Your task to perform on an android device: Show me popular videos on Youtube Image 0: 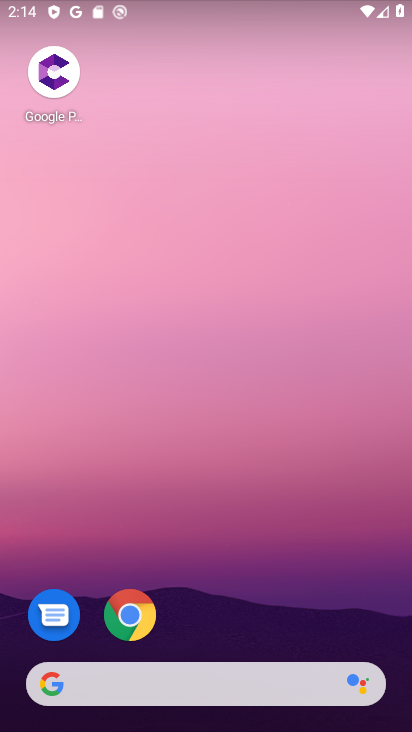
Step 0: drag from (206, 605) to (283, 168)
Your task to perform on an android device: Show me popular videos on Youtube Image 1: 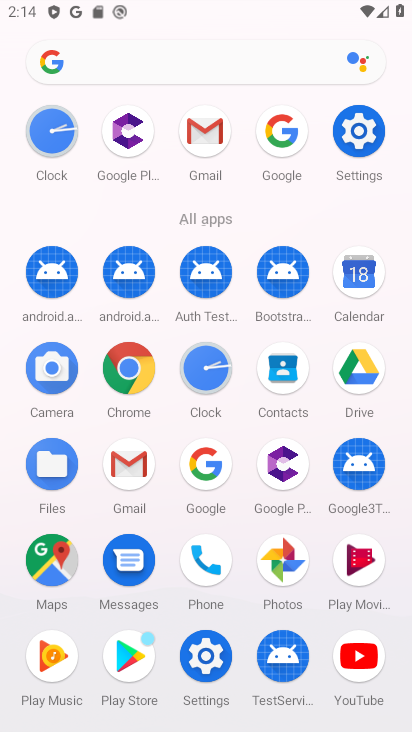
Step 1: click (355, 650)
Your task to perform on an android device: Show me popular videos on Youtube Image 2: 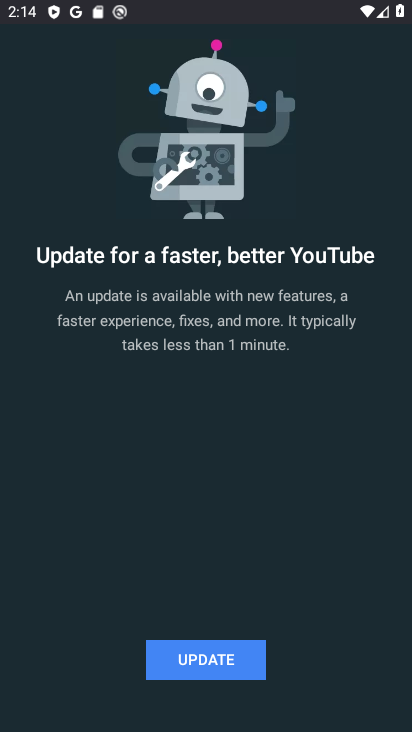
Step 2: click (191, 666)
Your task to perform on an android device: Show me popular videos on Youtube Image 3: 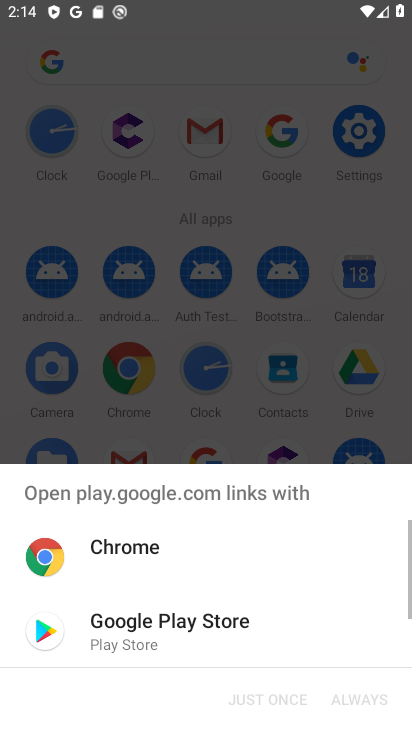
Step 3: click (195, 627)
Your task to perform on an android device: Show me popular videos on Youtube Image 4: 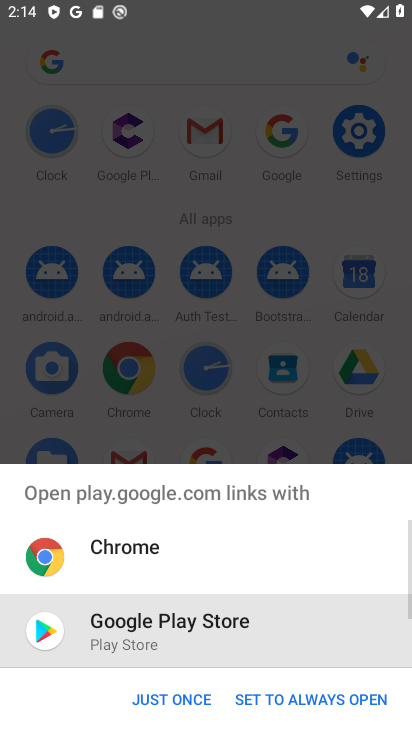
Step 4: click (179, 688)
Your task to perform on an android device: Show me popular videos on Youtube Image 5: 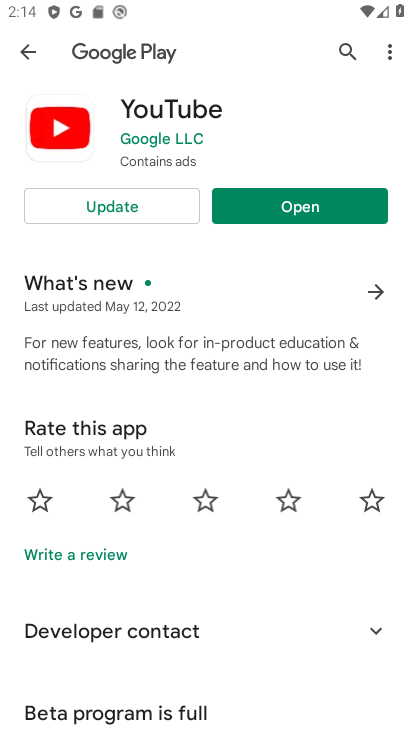
Step 5: click (152, 214)
Your task to perform on an android device: Show me popular videos on Youtube Image 6: 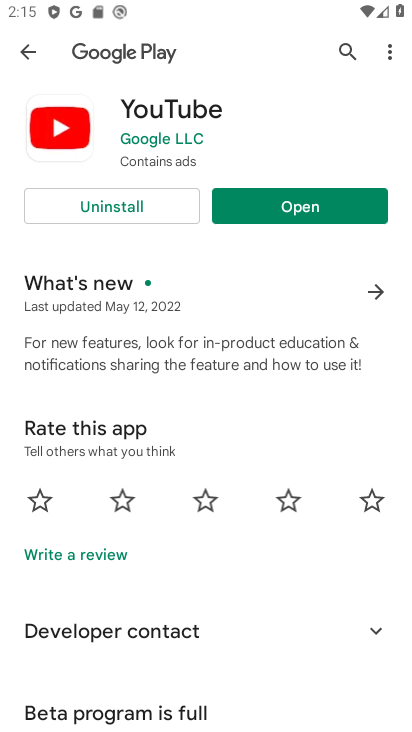
Step 6: click (310, 212)
Your task to perform on an android device: Show me popular videos on Youtube Image 7: 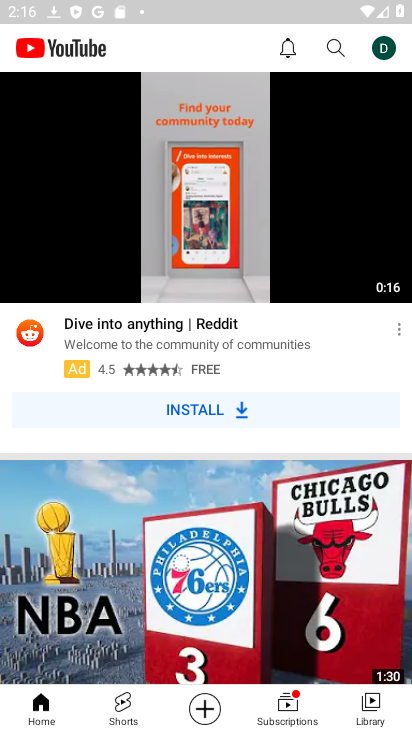
Step 7: click (333, 39)
Your task to perform on an android device: Show me popular videos on Youtube Image 8: 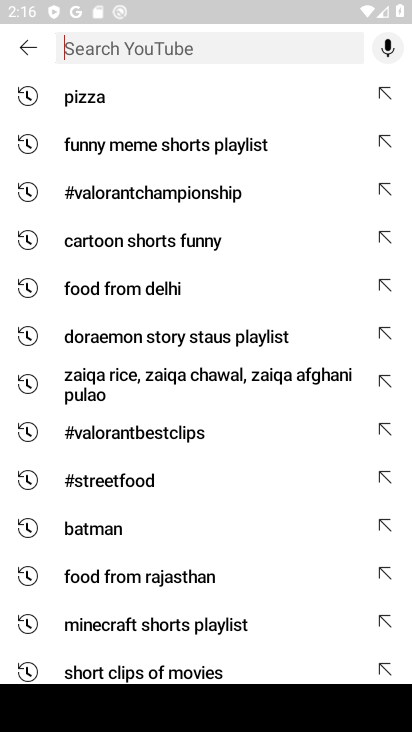
Step 8: type "popular videos"
Your task to perform on an android device: Show me popular videos on Youtube Image 9: 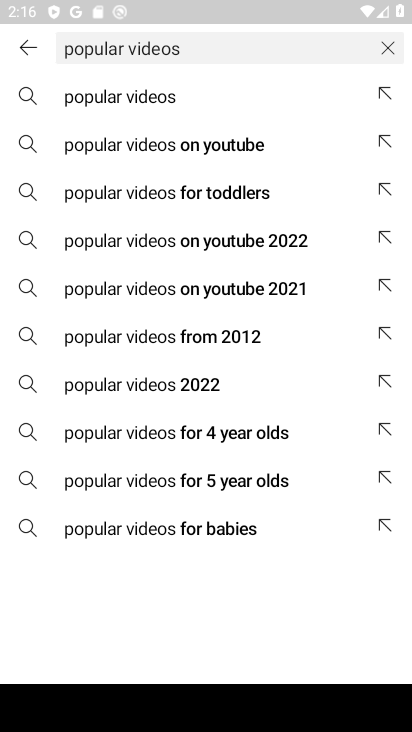
Step 9: click (113, 93)
Your task to perform on an android device: Show me popular videos on Youtube Image 10: 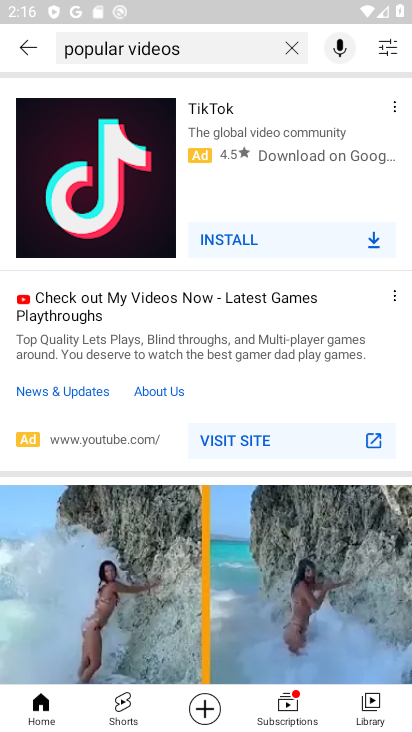
Step 10: task complete